Your task to perform on an android device: all mails in gmail Image 0: 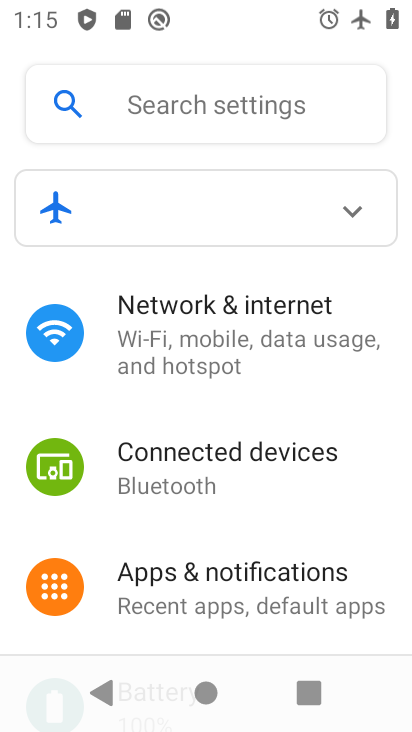
Step 0: press home button
Your task to perform on an android device: all mails in gmail Image 1: 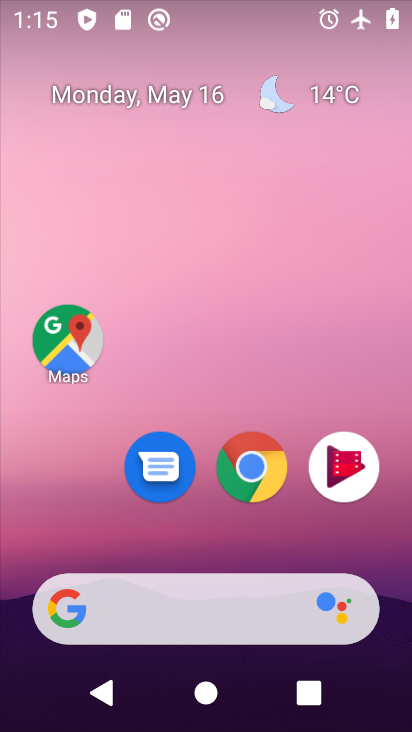
Step 1: drag from (181, 555) to (238, 203)
Your task to perform on an android device: all mails in gmail Image 2: 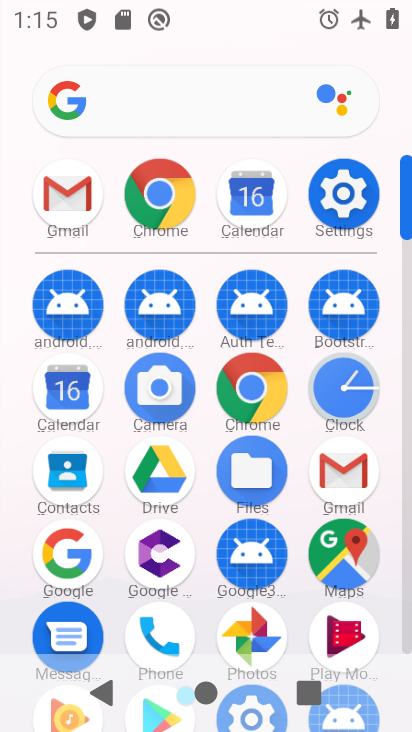
Step 2: click (45, 197)
Your task to perform on an android device: all mails in gmail Image 3: 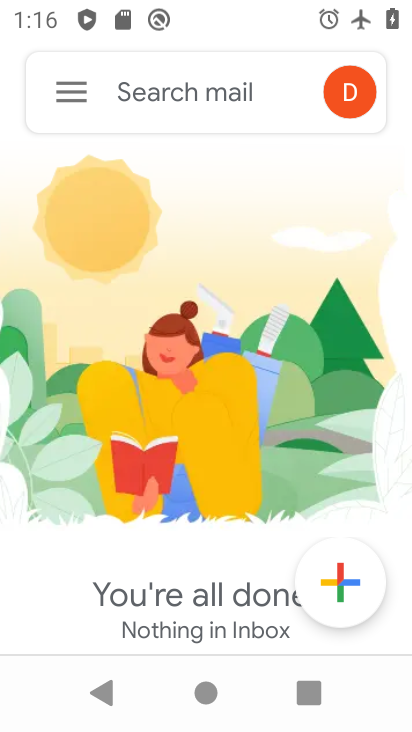
Step 3: click (69, 92)
Your task to perform on an android device: all mails in gmail Image 4: 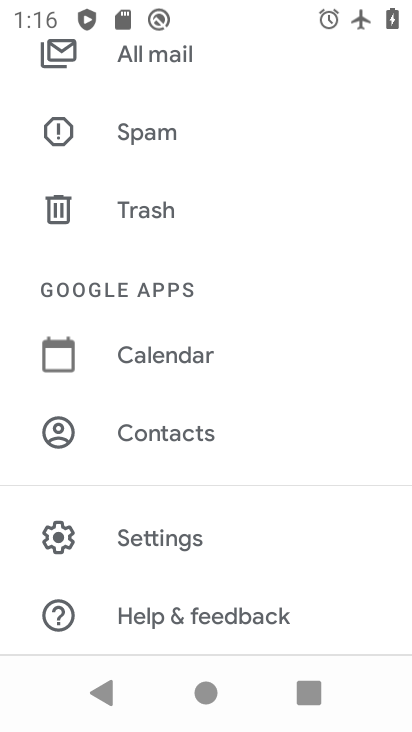
Step 4: click (194, 53)
Your task to perform on an android device: all mails in gmail Image 5: 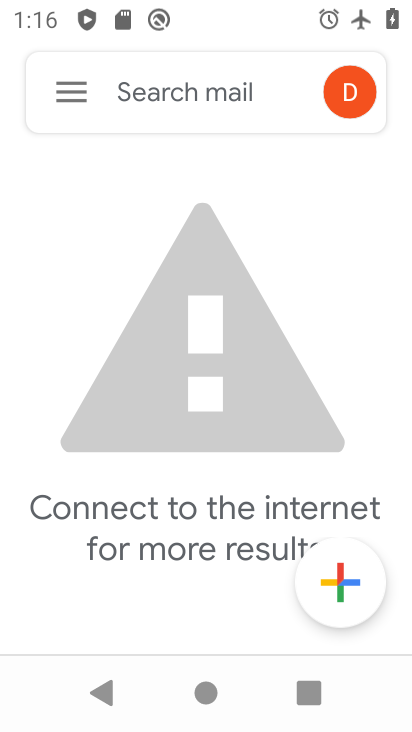
Step 5: click (63, 94)
Your task to perform on an android device: all mails in gmail Image 6: 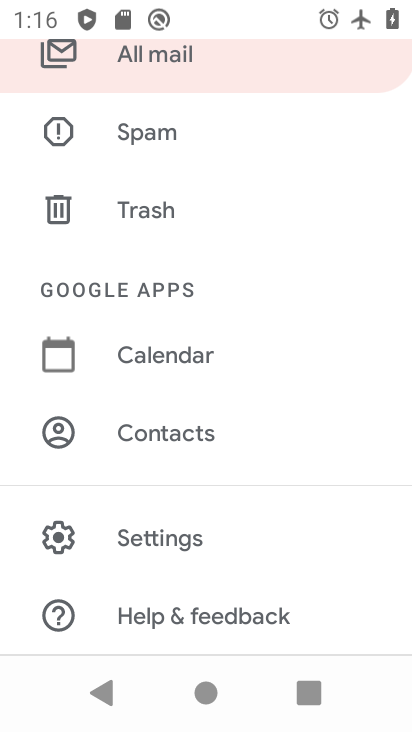
Step 6: click (160, 537)
Your task to perform on an android device: all mails in gmail Image 7: 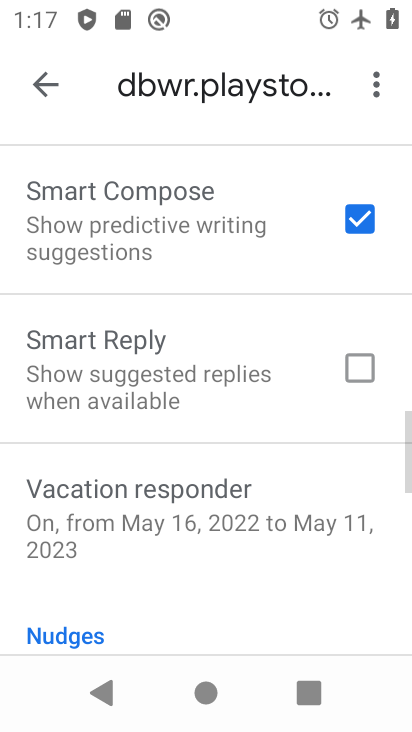
Step 7: click (44, 67)
Your task to perform on an android device: all mails in gmail Image 8: 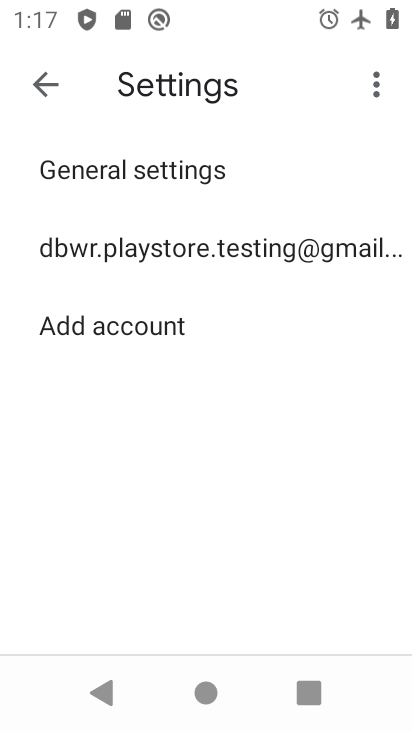
Step 8: click (49, 80)
Your task to perform on an android device: all mails in gmail Image 9: 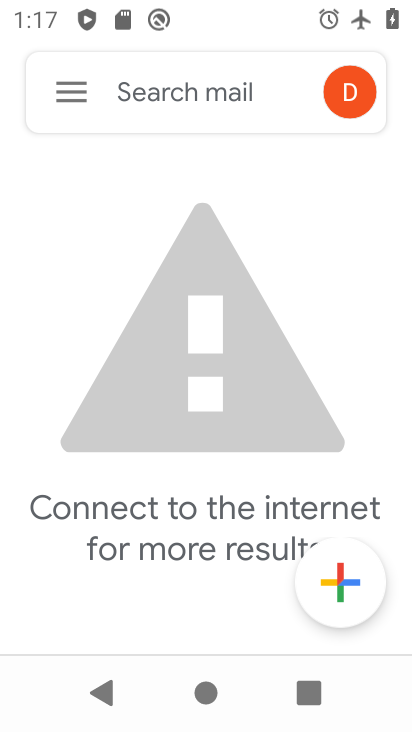
Step 9: click (59, 84)
Your task to perform on an android device: all mails in gmail Image 10: 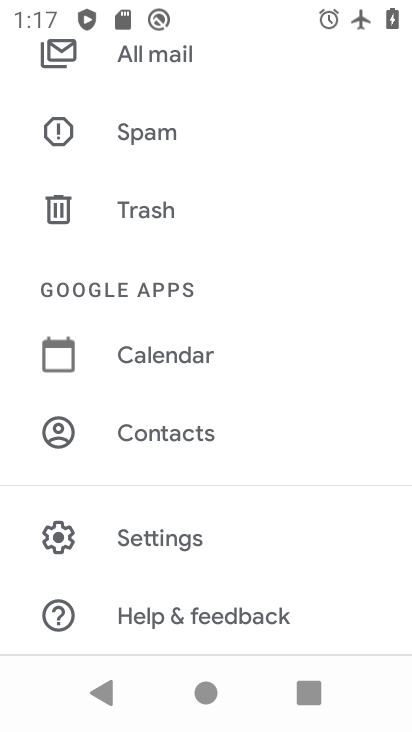
Step 10: click (197, 51)
Your task to perform on an android device: all mails in gmail Image 11: 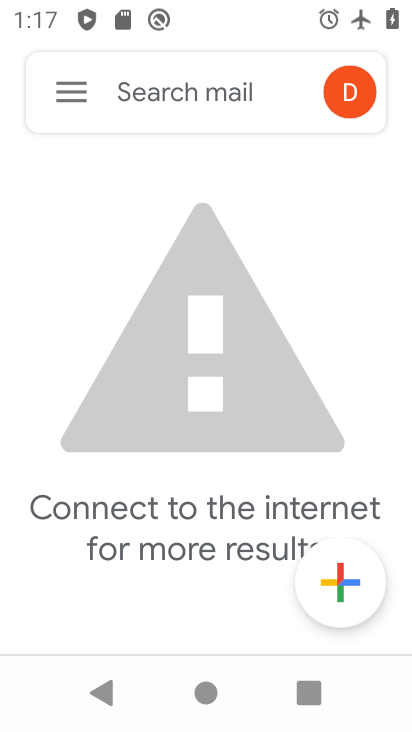
Step 11: click (61, 94)
Your task to perform on an android device: all mails in gmail Image 12: 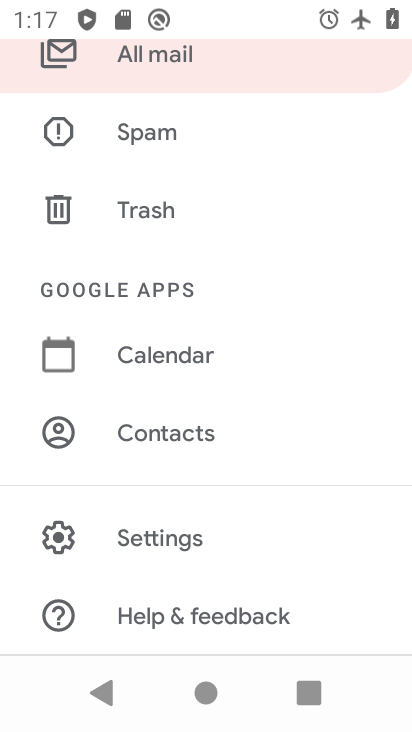
Step 12: drag from (176, 63) to (189, 233)
Your task to perform on an android device: all mails in gmail Image 13: 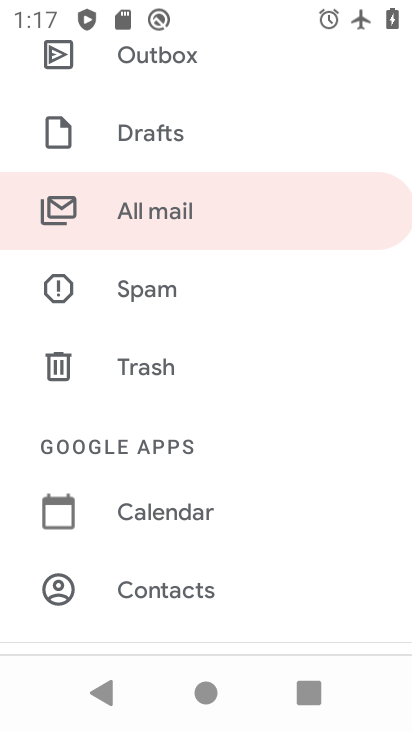
Step 13: click (170, 200)
Your task to perform on an android device: all mails in gmail Image 14: 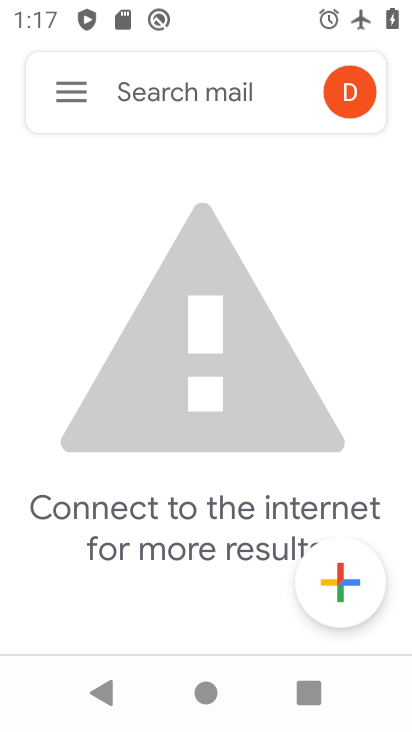
Step 14: task complete